Your task to perform on an android device: Show me recent news Image 0: 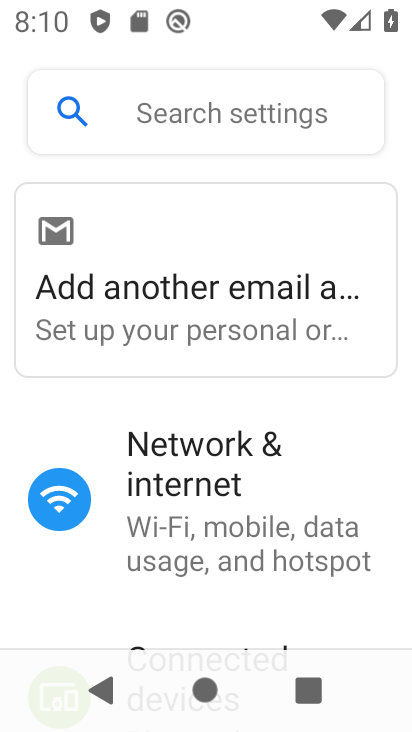
Step 0: press home button
Your task to perform on an android device: Show me recent news Image 1: 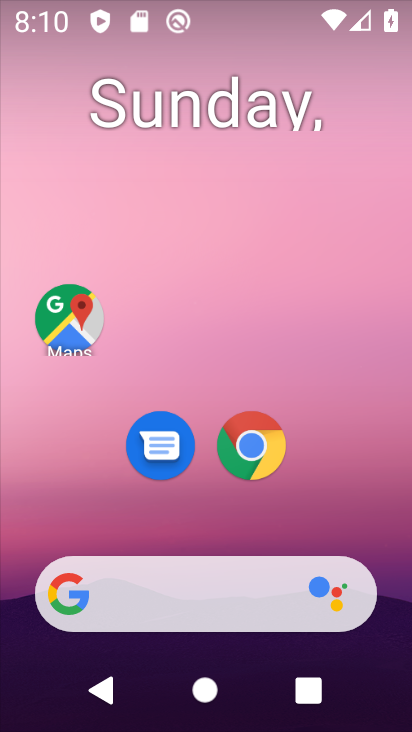
Step 1: click (153, 592)
Your task to perform on an android device: Show me recent news Image 2: 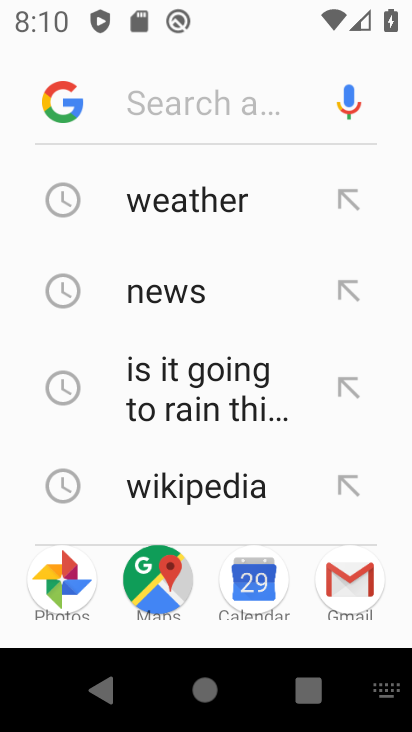
Step 2: type "recent news"
Your task to perform on an android device: Show me recent news Image 3: 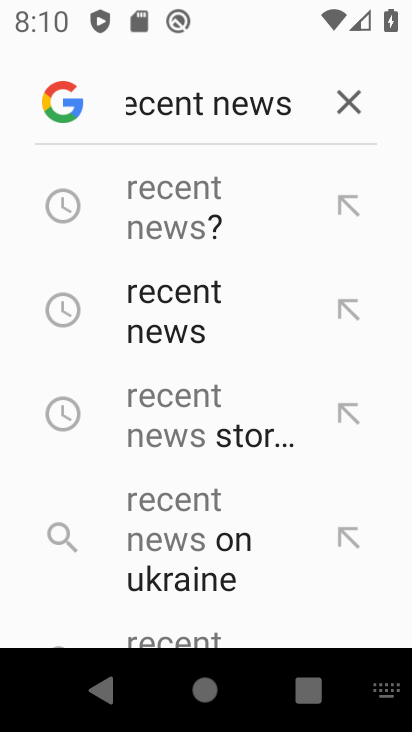
Step 3: click (165, 321)
Your task to perform on an android device: Show me recent news Image 4: 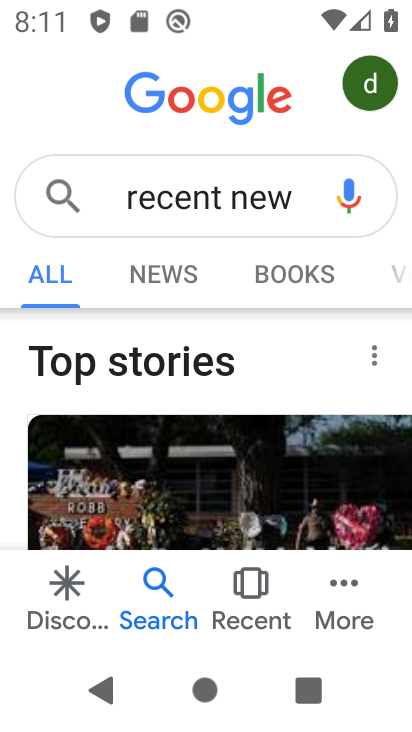
Step 4: click (170, 273)
Your task to perform on an android device: Show me recent news Image 5: 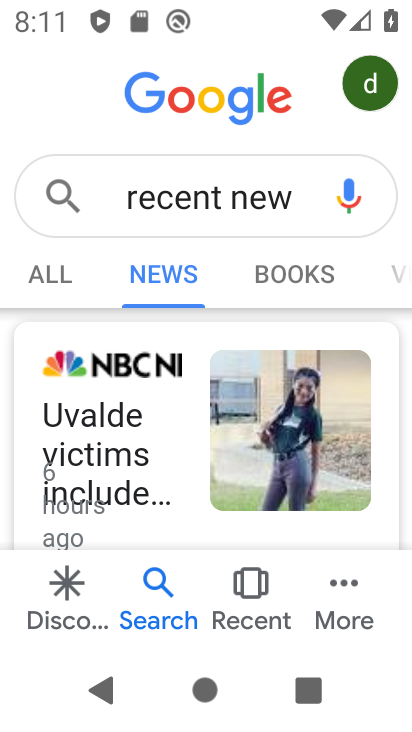
Step 5: task complete